Your task to perform on an android device: star an email in the gmail app Image 0: 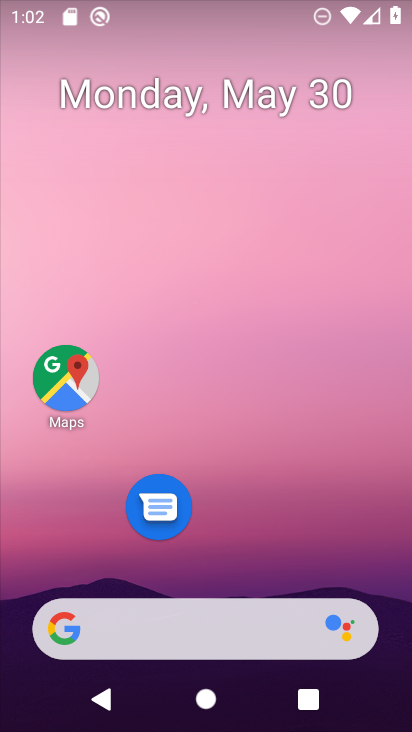
Step 0: drag from (234, 550) to (236, 73)
Your task to perform on an android device: star an email in the gmail app Image 1: 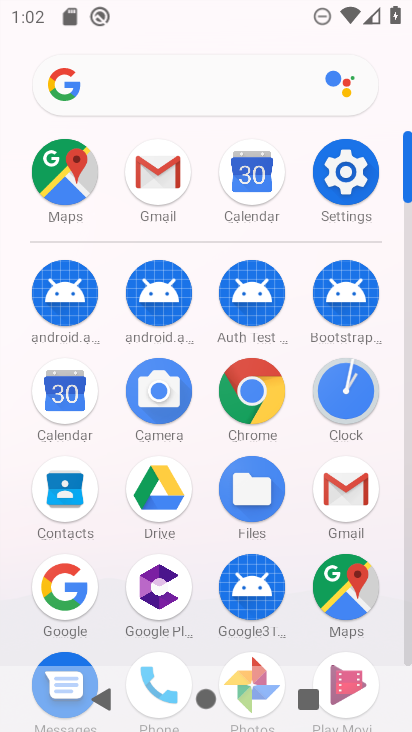
Step 1: click (351, 491)
Your task to perform on an android device: star an email in the gmail app Image 2: 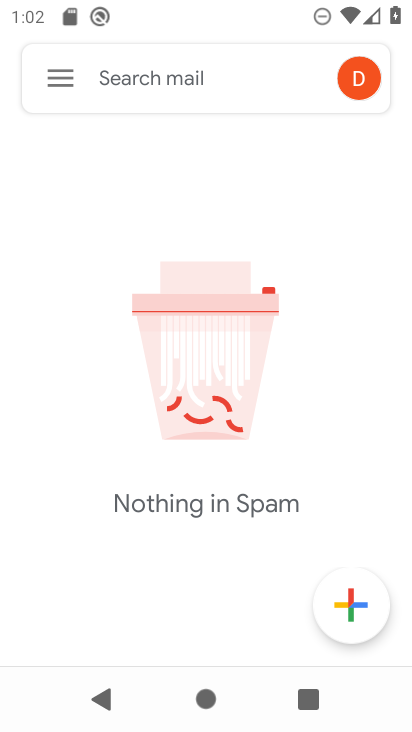
Step 2: click (70, 80)
Your task to perform on an android device: star an email in the gmail app Image 3: 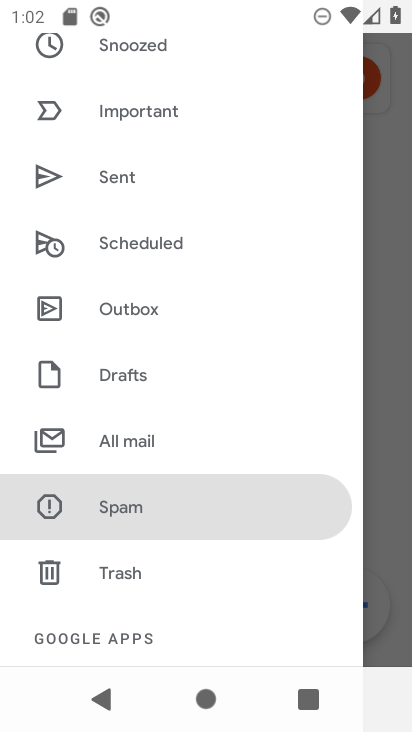
Step 3: drag from (266, 118) to (238, 441)
Your task to perform on an android device: star an email in the gmail app Image 4: 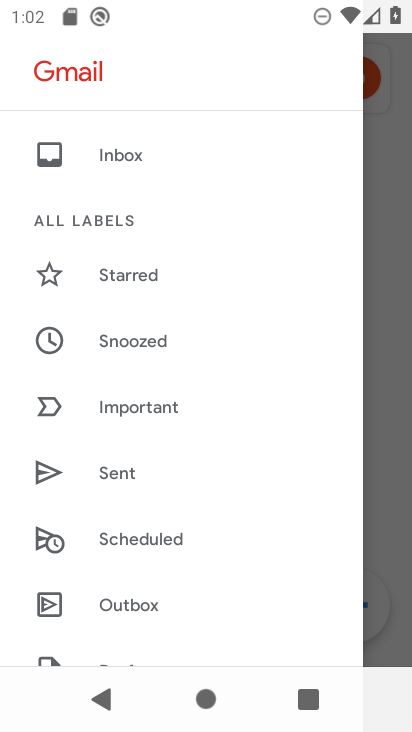
Step 4: click (123, 155)
Your task to perform on an android device: star an email in the gmail app Image 5: 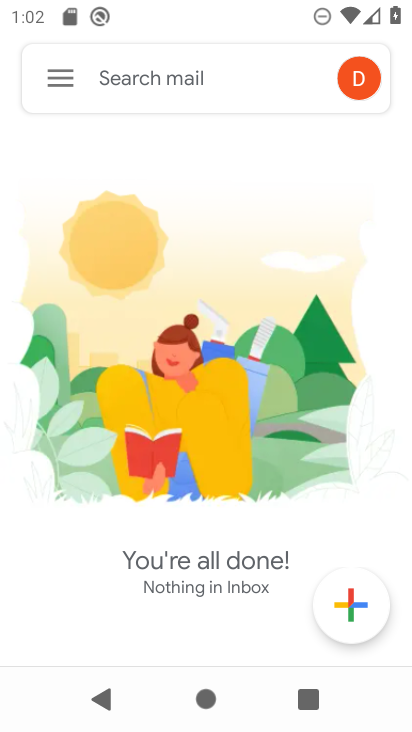
Step 5: task complete